Your task to perform on an android device: set the timer Image 0: 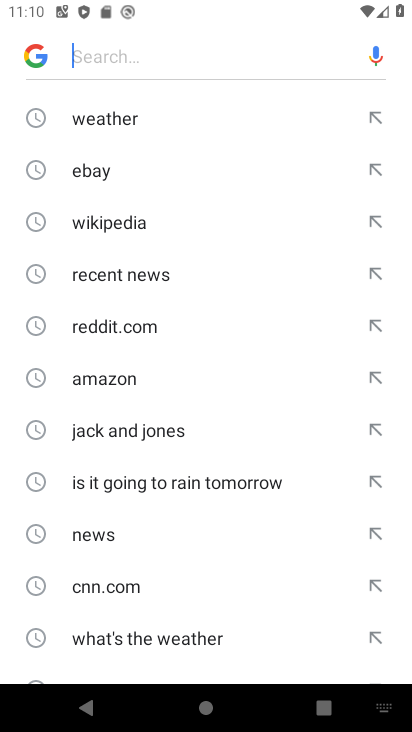
Step 0: press home button
Your task to perform on an android device: set the timer Image 1: 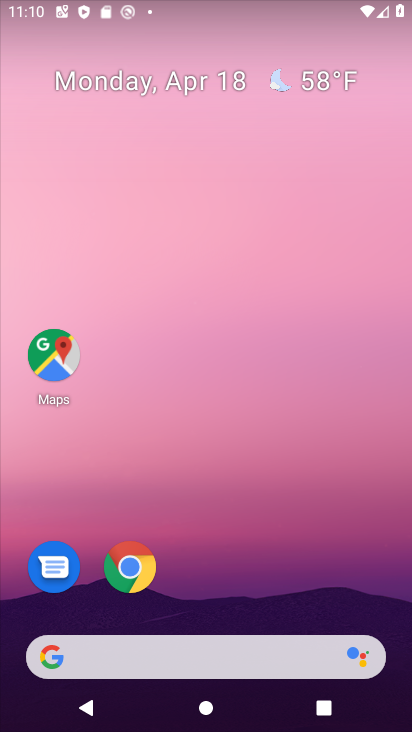
Step 1: drag from (368, 607) to (310, 159)
Your task to perform on an android device: set the timer Image 2: 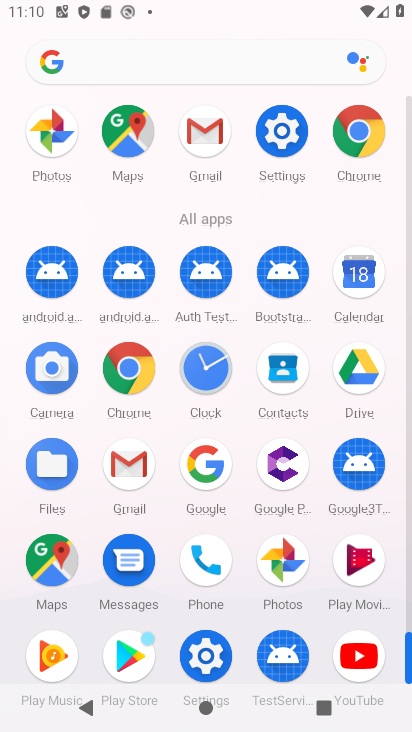
Step 2: click (205, 371)
Your task to perform on an android device: set the timer Image 3: 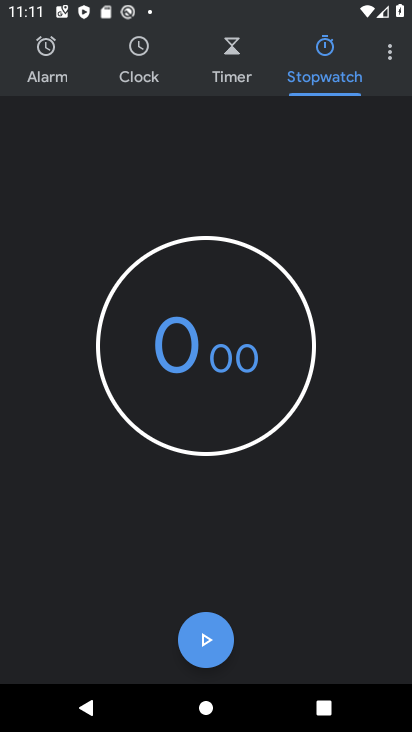
Step 3: click (234, 41)
Your task to perform on an android device: set the timer Image 4: 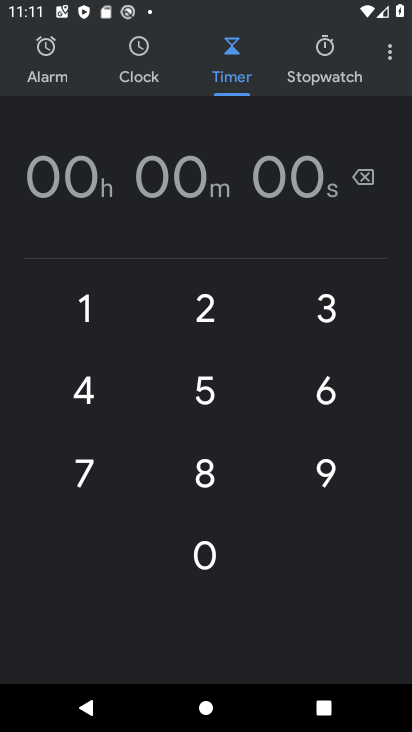
Step 4: click (109, 310)
Your task to perform on an android device: set the timer Image 5: 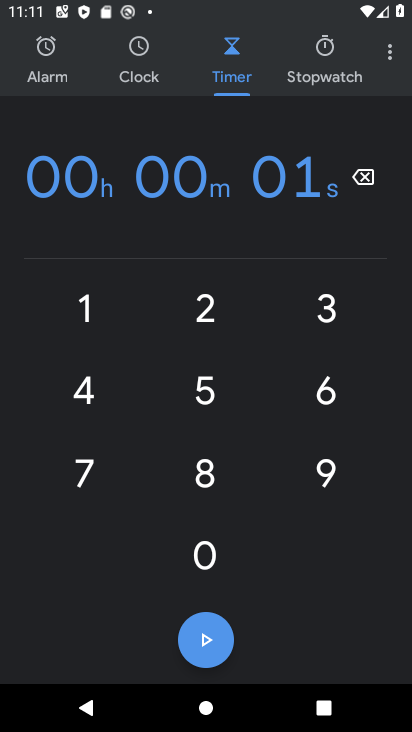
Step 5: click (324, 323)
Your task to perform on an android device: set the timer Image 6: 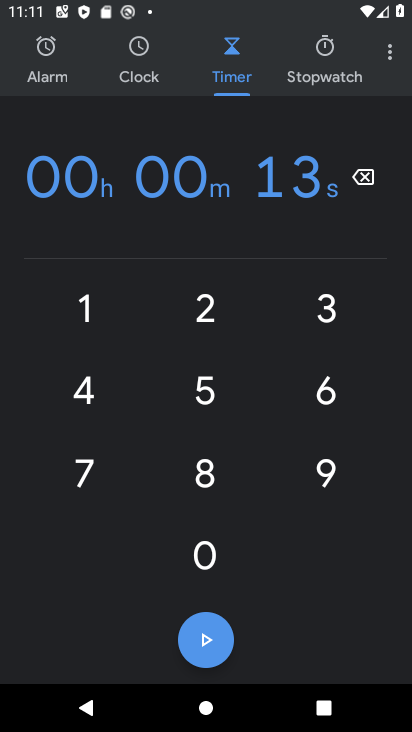
Step 6: click (197, 557)
Your task to perform on an android device: set the timer Image 7: 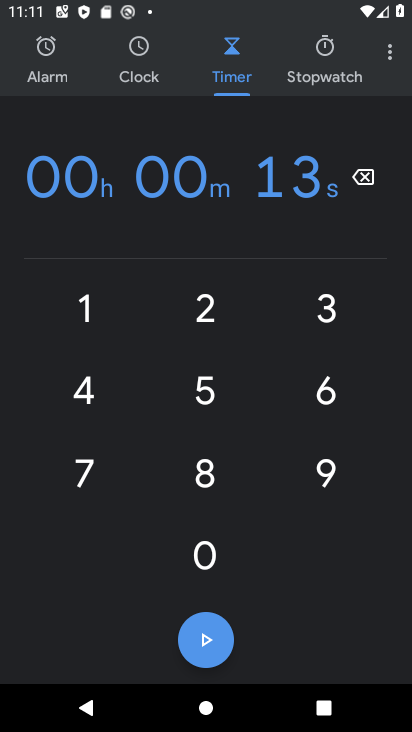
Step 7: click (197, 557)
Your task to perform on an android device: set the timer Image 8: 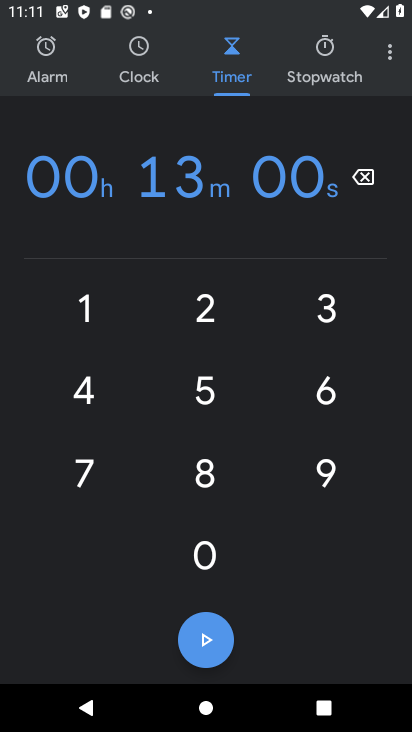
Step 8: click (197, 557)
Your task to perform on an android device: set the timer Image 9: 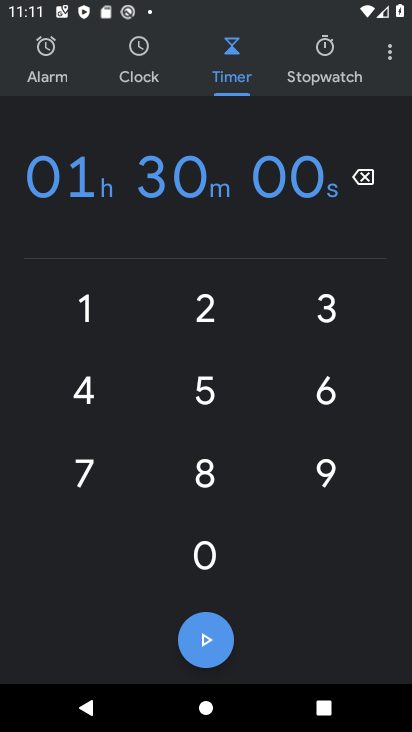
Step 9: task complete